Your task to perform on an android device: check battery use Image 0: 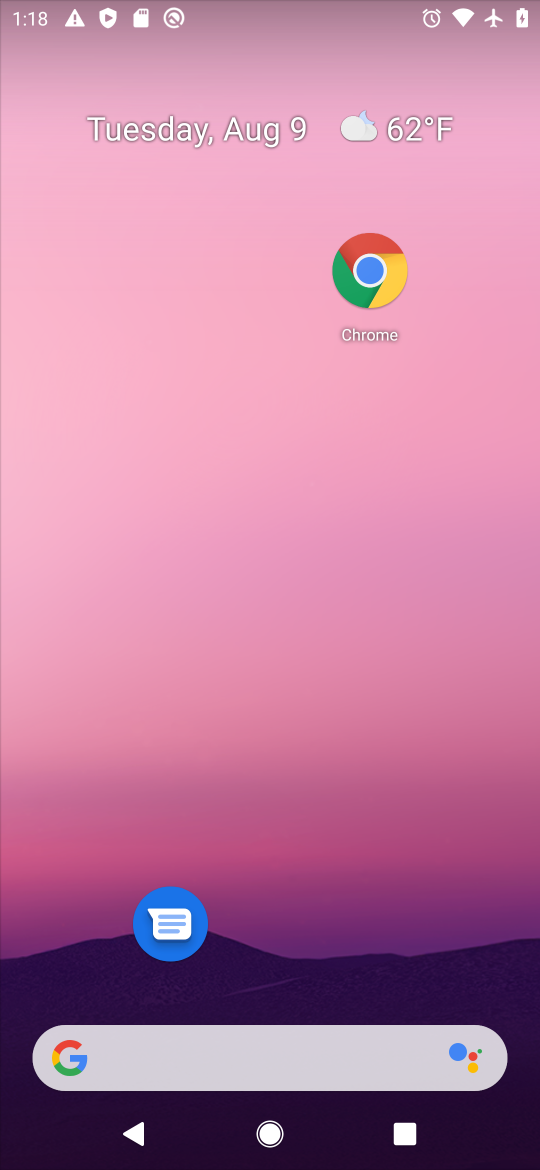
Step 0: drag from (373, 1005) to (377, 50)
Your task to perform on an android device: check battery use Image 1: 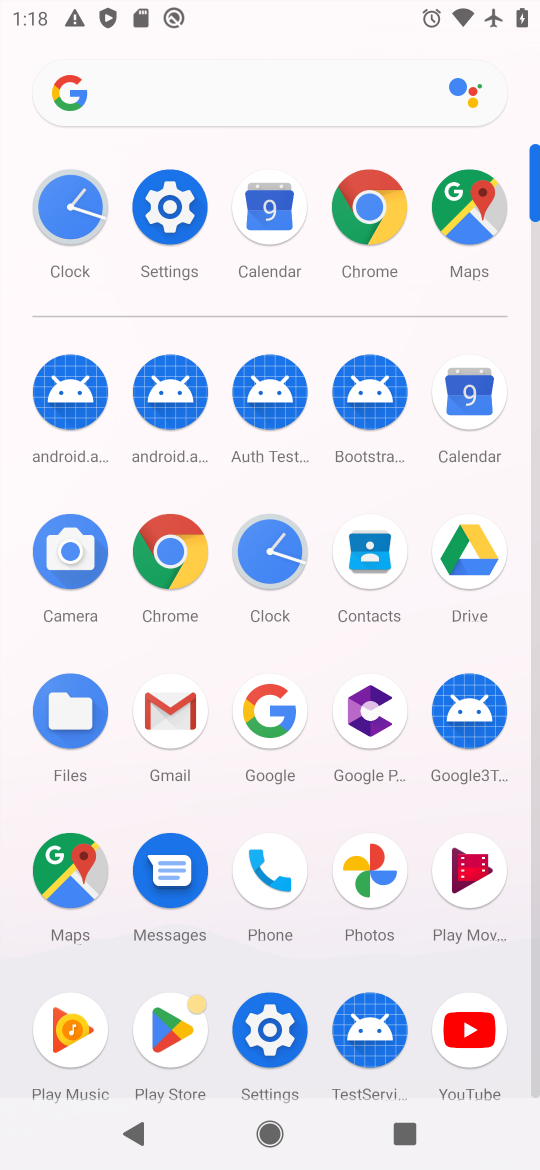
Step 1: click (184, 264)
Your task to perform on an android device: check battery use Image 2: 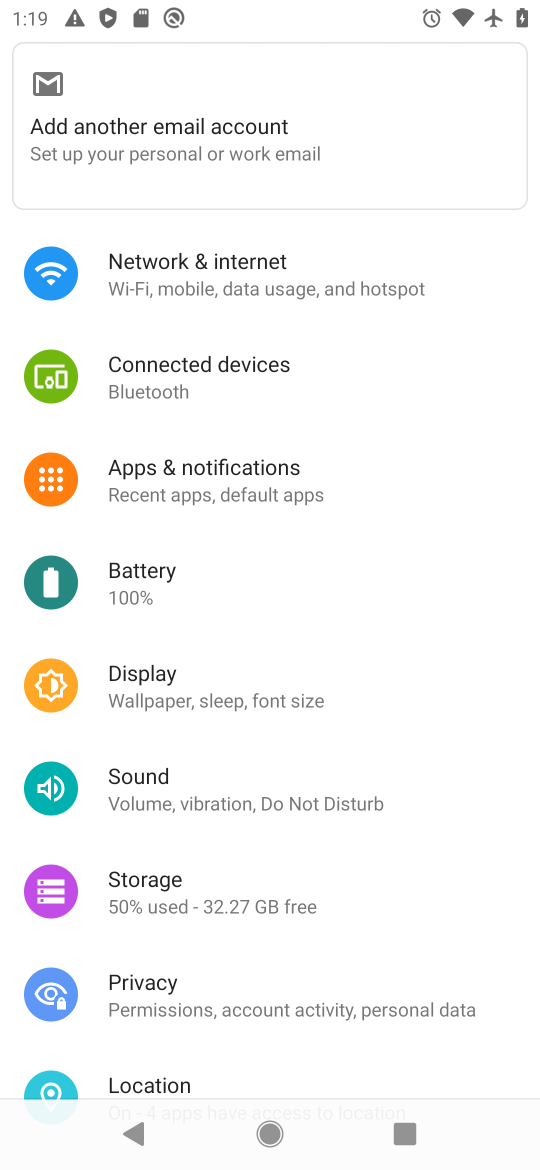
Step 2: click (145, 583)
Your task to perform on an android device: check battery use Image 3: 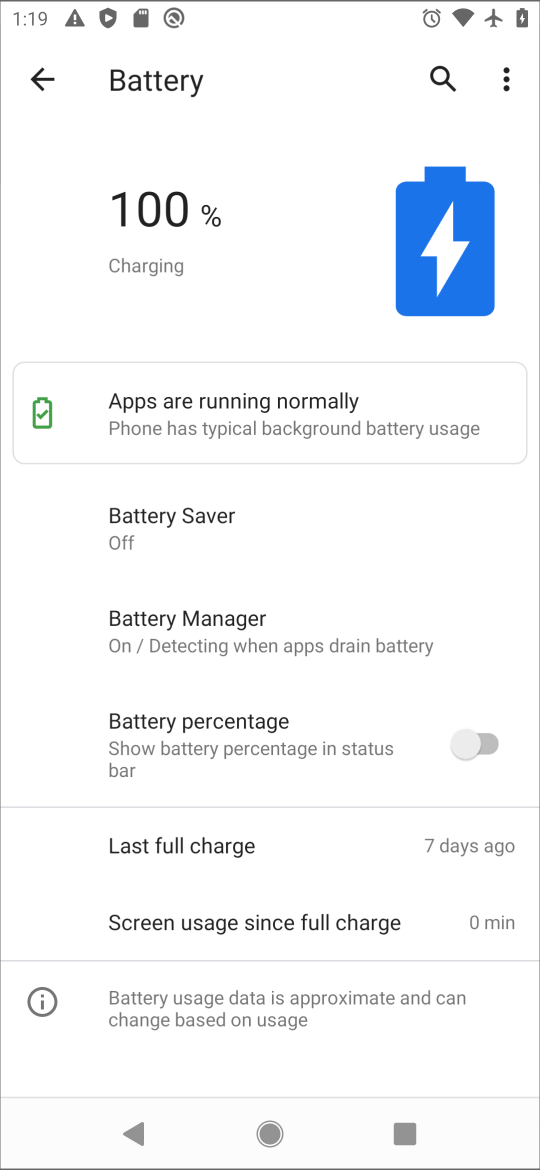
Step 3: task complete